Your task to perform on an android device: change the upload size in google photos Image 0: 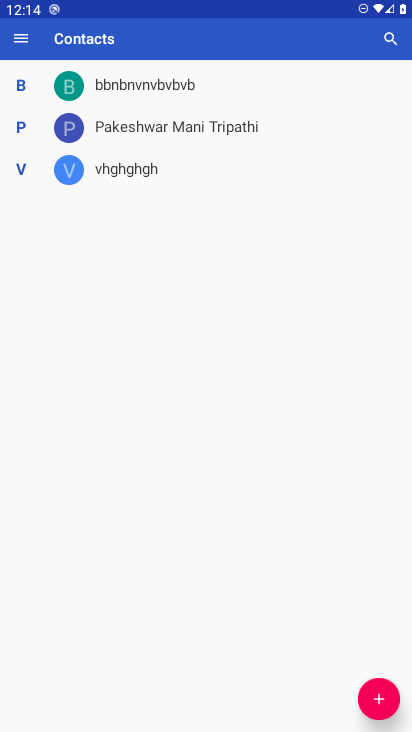
Step 0: press home button
Your task to perform on an android device: change the upload size in google photos Image 1: 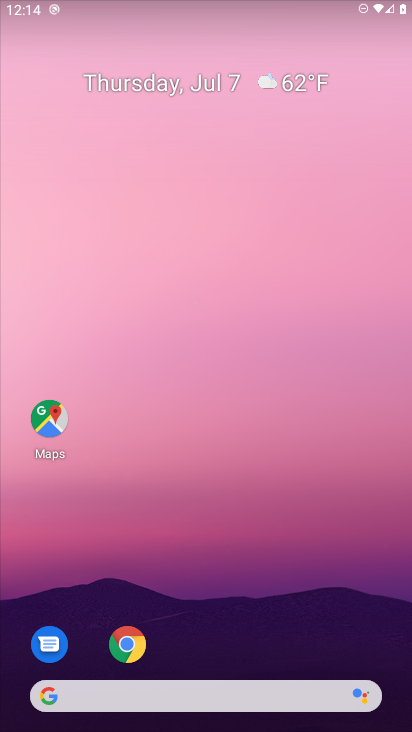
Step 1: drag from (266, 589) to (286, 167)
Your task to perform on an android device: change the upload size in google photos Image 2: 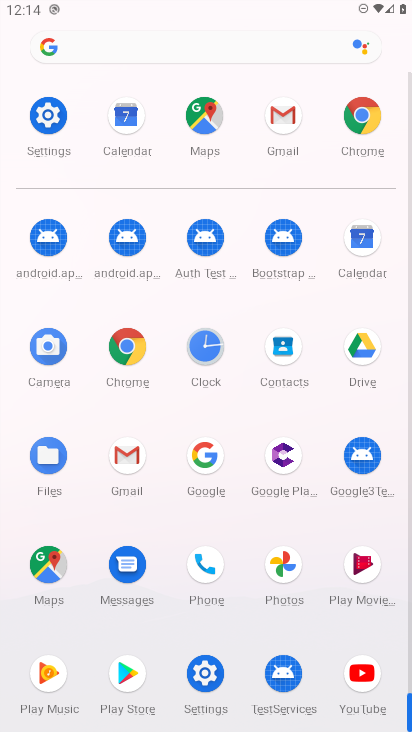
Step 2: click (280, 549)
Your task to perform on an android device: change the upload size in google photos Image 3: 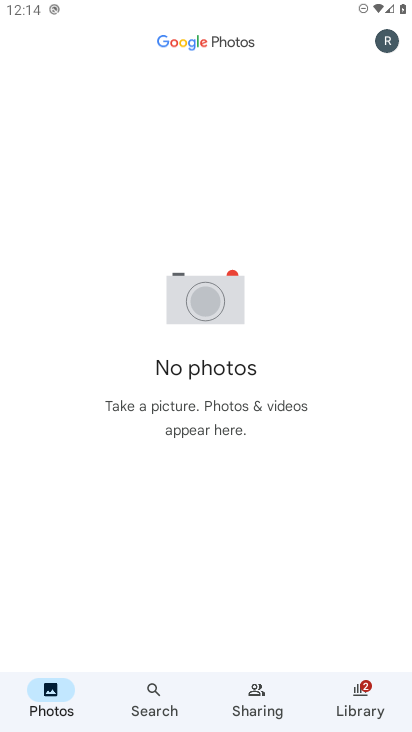
Step 3: click (382, 40)
Your task to perform on an android device: change the upload size in google photos Image 4: 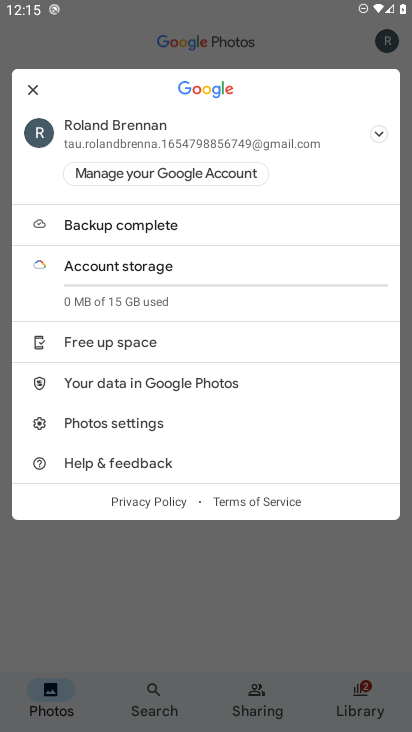
Step 4: click (123, 421)
Your task to perform on an android device: change the upload size in google photos Image 5: 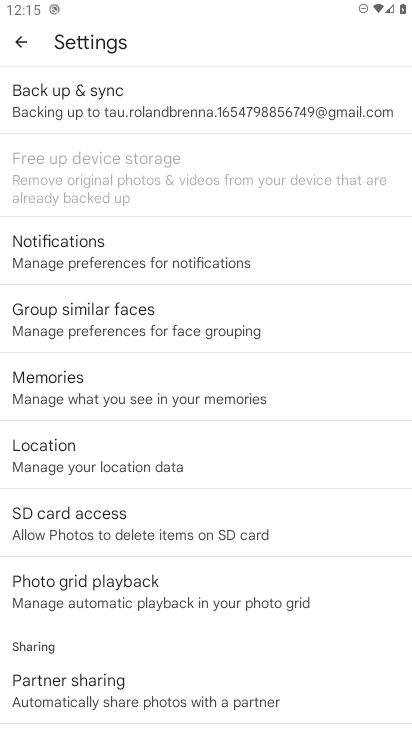
Step 5: click (159, 113)
Your task to perform on an android device: change the upload size in google photos Image 6: 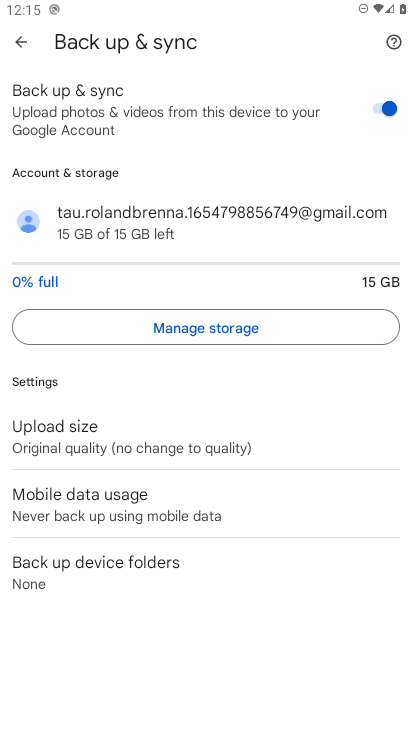
Step 6: click (32, 431)
Your task to perform on an android device: change the upload size in google photos Image 7: 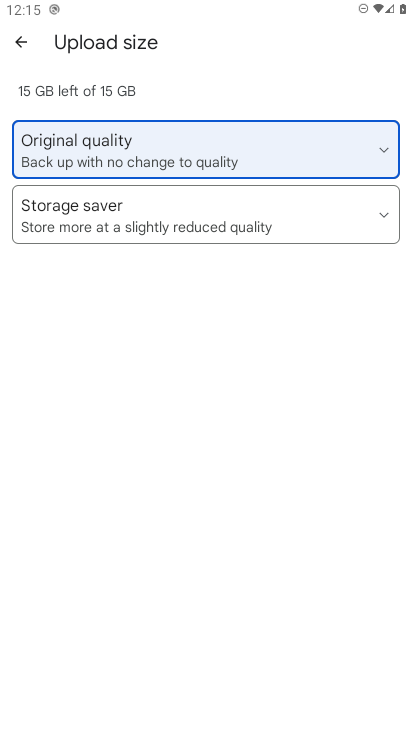
Step 7: click (156, 219)
Your task to perform on an android device: change the upload size in google photos Image 8: 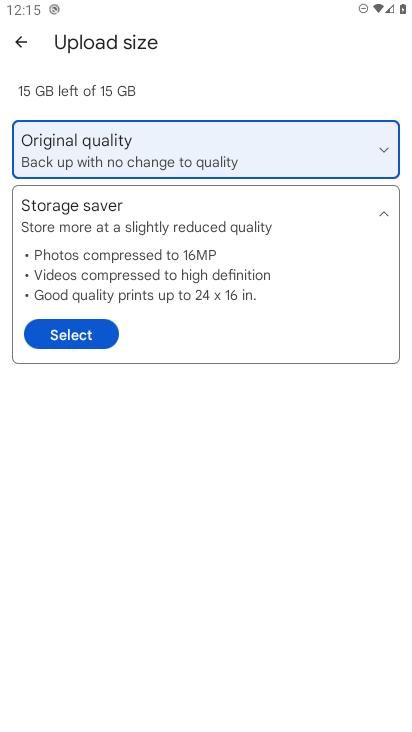
Step 8: click (73, 338)
Your task to perform on an android device: change the upload size in google photos Image 9: 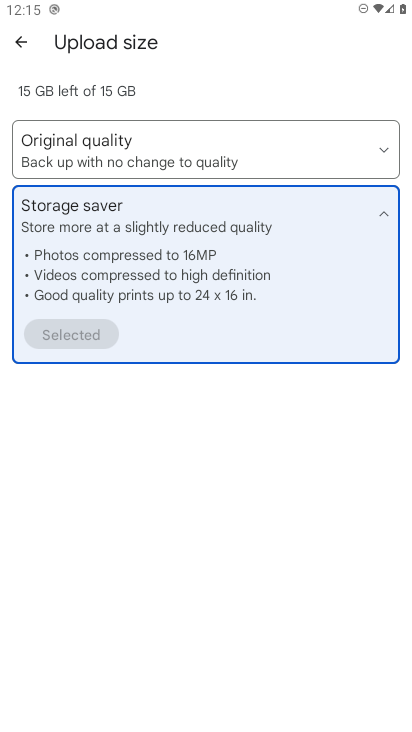
Step 9: task complete